Your task to perform on an android device: Add "usb-c to usb-b" to the cart on newegg Image 0: 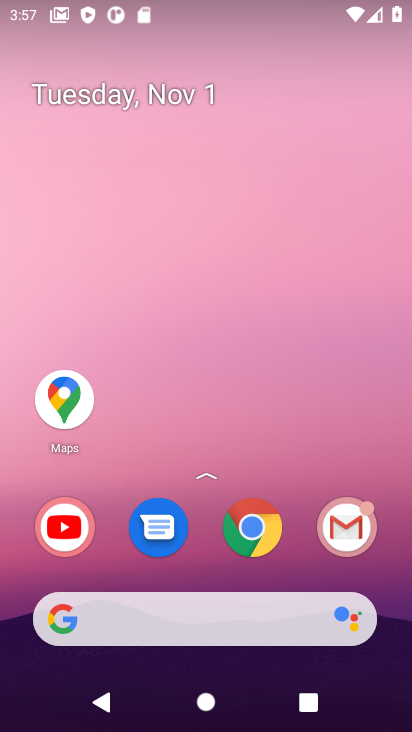
Step 0: click (214, 616)
Your task to perform on an android device: Add "usb-c to usb-b" to the cart on newegg Image 1: 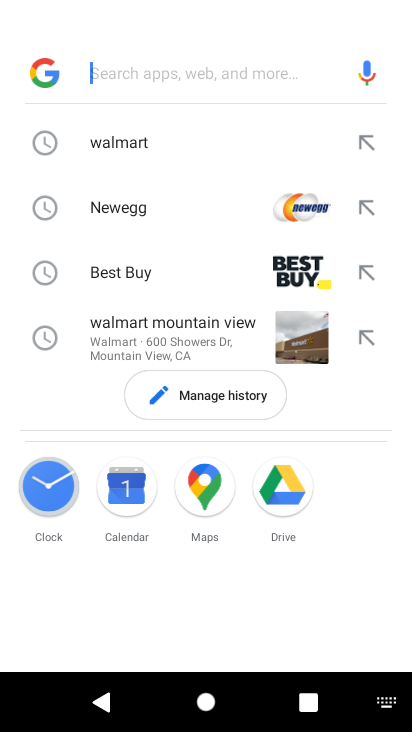
Step 1: type "newegg"
Your task to perform on an android device: Add "usb-c to usb-b" to the cart on newegg Image 2: 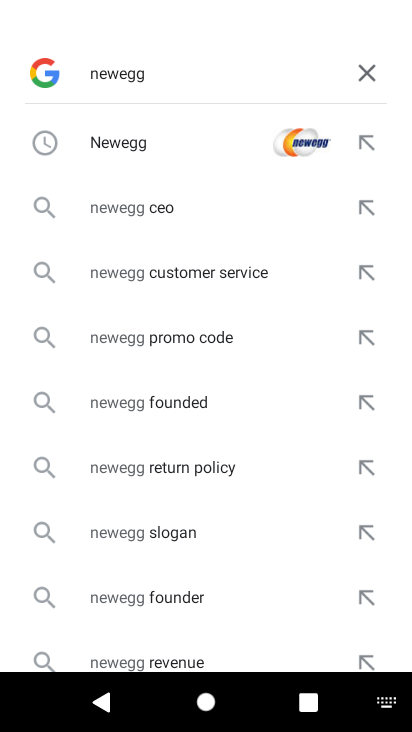
Step 2: click (127, 155)
Your task to perform on an android device: Add "usb-c to usb-b" to the cart on newegg Image 3: 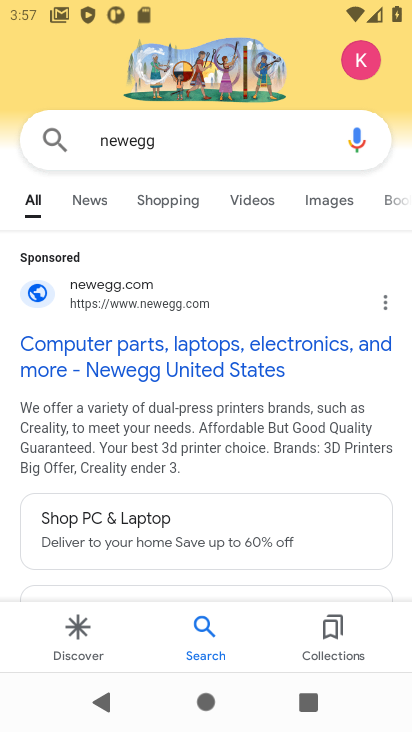
Step 3: click (119, 302)
Your task to perform on an android device: Add "usb-c to usb-b" to the cart on newegg Image 4: 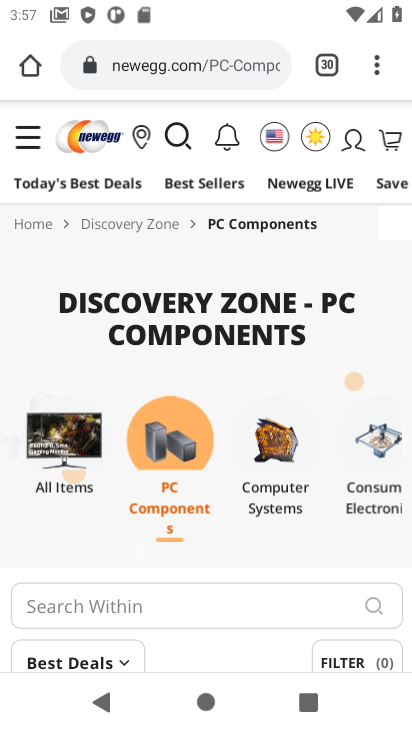
Step 4: click (176, 124)
Your task to perform on an android device: Add "usb-c to usb-b" to the cart on newegg Image 5: 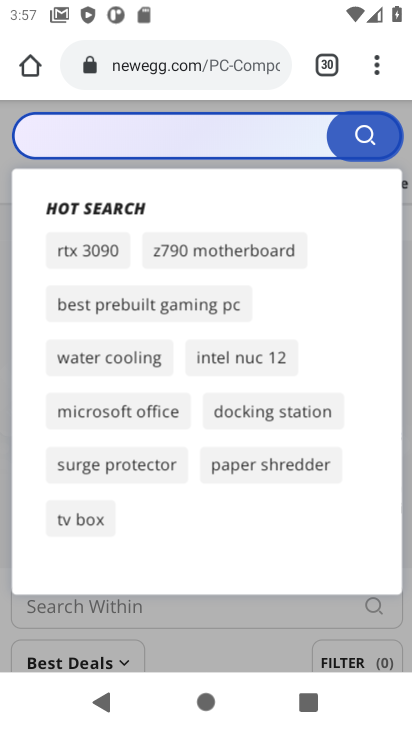
Step 5: click (165, 142)
Your task to perform on an android device: Add "usb-c to usb-b" to the cart on newegg Image 6: 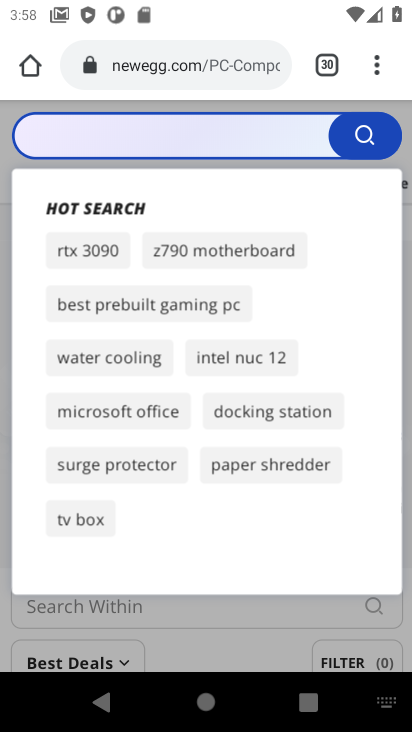
Step 6: type ""usb-c to usb-b""
Your task to perform on an android device: Add "usb-c to usb-b" to the cart on newegg Image 7: 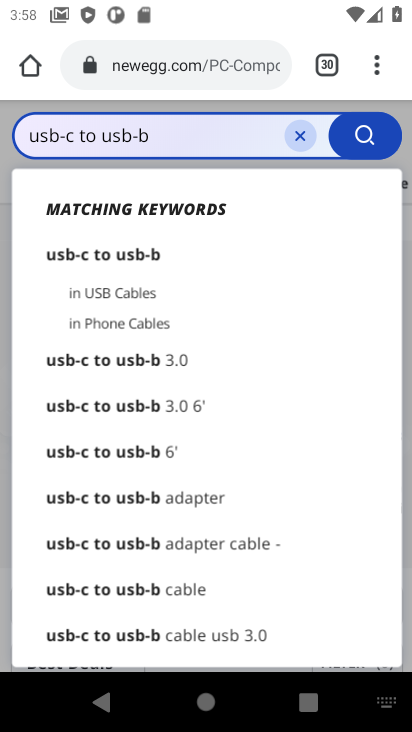
Step 7: click (134, 252)
Your task to perform on an android device: Add "usb-c to usb-b" to the cart on newegg Image 8: 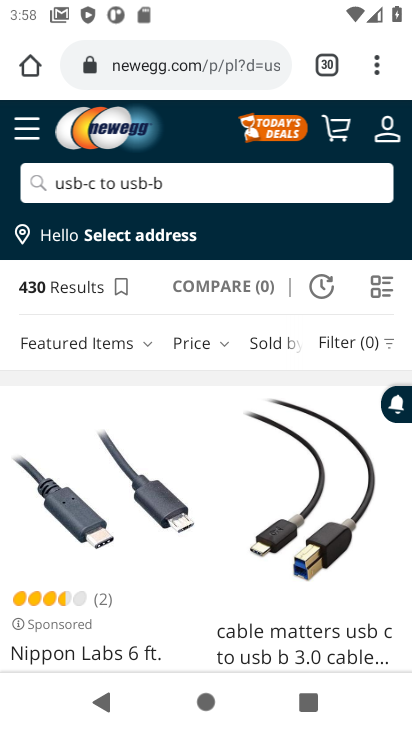
Step 8: click (82, 524)
Your task to perform on an android device: Add "usb-c to usb-b" to the cart on newegg Image 9: 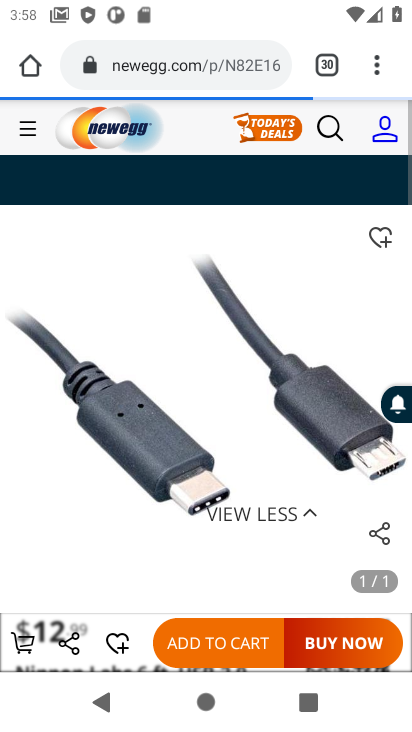
Step 9: click (205, 656)
Your task to perform on an android device: Add "usb-c to usb-b" to the cart on newegg Image 10: 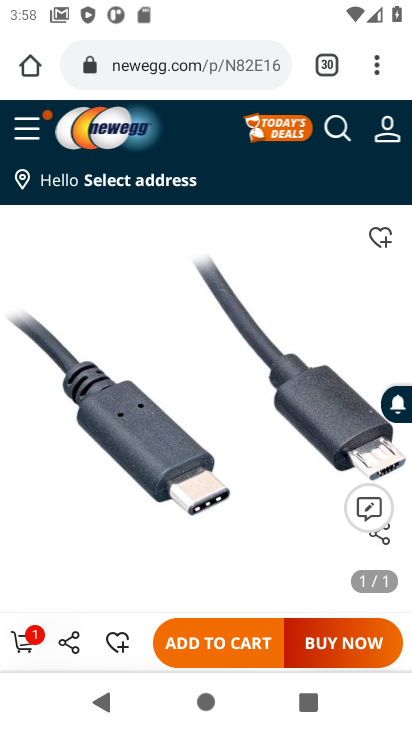
Step 10: task complete